Your task to perform on an android device: change your default location settings in chrome Image 0: 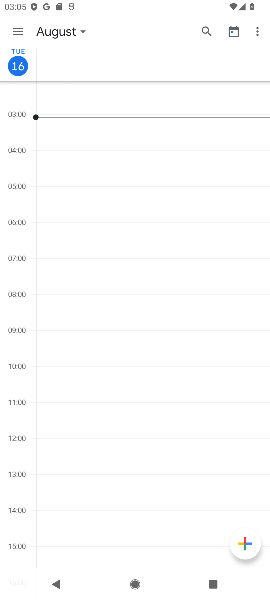
Step 0: press home button
Your task to perform on an android device: change your default location settings in chrome Image 1: 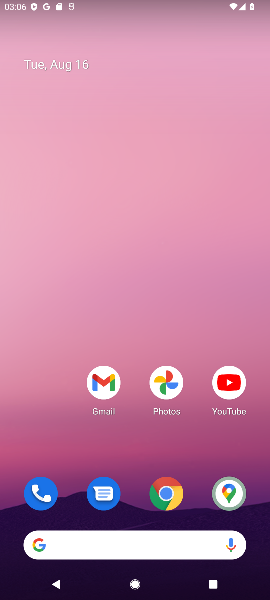
Step 1: drag from (60, 417) to (49, 53)
Your task to perform on an android device: change your default location settings in chrome Image 2: 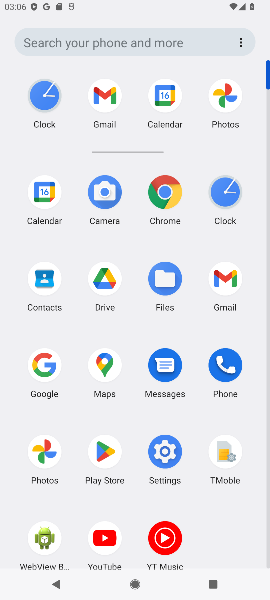
Step 2: click (165, 193)
Your task to perform on an android device: change your default location settings in chrome Image 3: 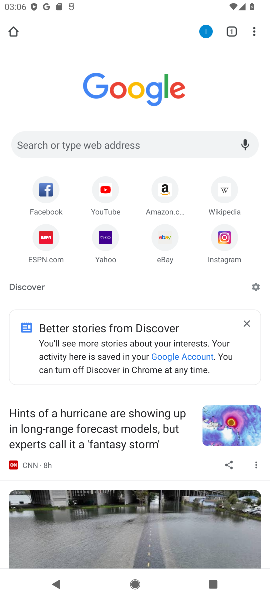
Step 3: click (253, 27)
Your task to perform on an android device: change your default location settings in chrome Image 4: 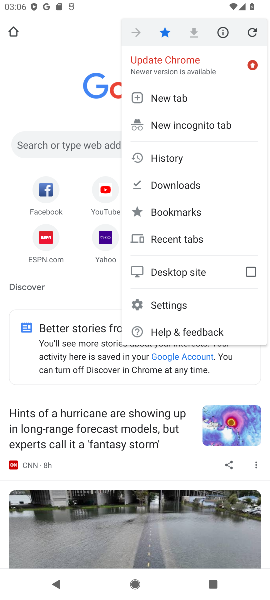
Step 4: click (183, 302)
Your task to perform on an android device: change your default location settings in chrome Image 5: 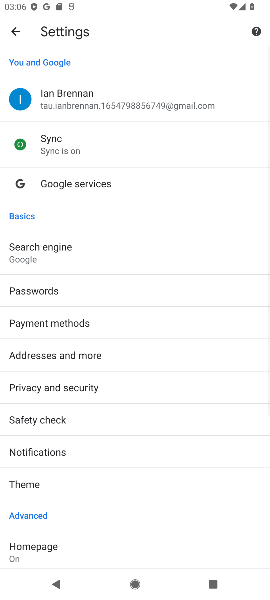
Step 5: drag from (185, 339) to (188, 248)
Your task to perform on an android device: change your default location settings in chrome Image 6: 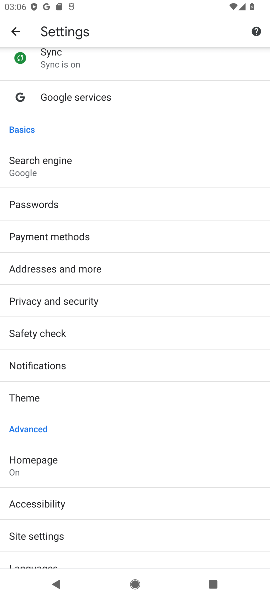
Step 6: drag from (208, 371) to (208, 337)
Your task to perform on an android device: change your default location settings in chrome Image 7: 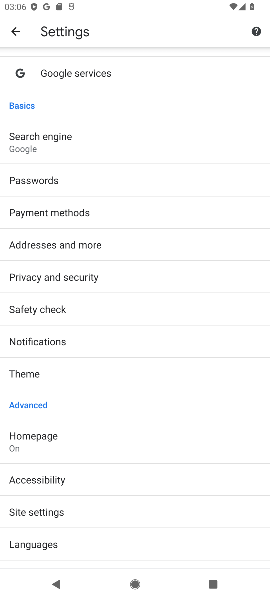
Step 7: drag from (209, 387) to (210, 297)
Your task to perform on an android device: change your default location settings in chrome Image 8: 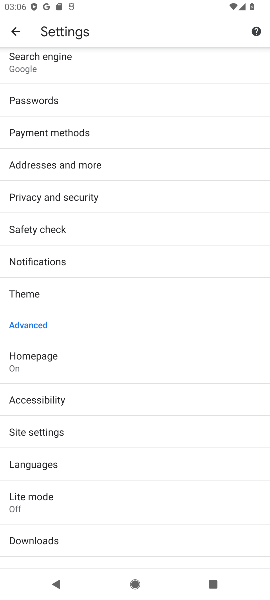
Step 8: drag from (195, 379) to (198, 306)
Your task to perform on an android device: change your default location settings in chrome Image 9: 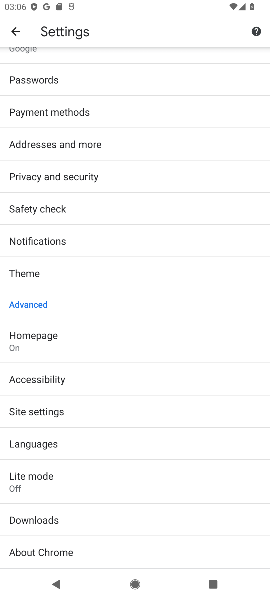
Step 9: click (198, 408)
Your task to perform on an android device: change your default location settings in chrome Image 10: 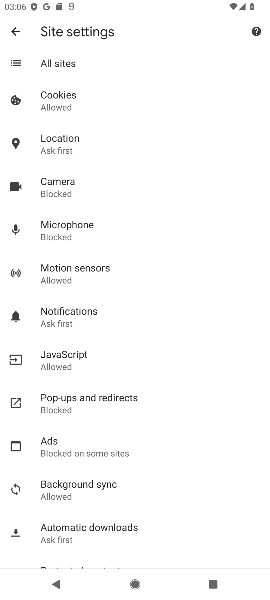
Step 10: drag from (200, 398) to (214, 315)
Your task to perform on an android device: change your default location settings in chrome Image 11: 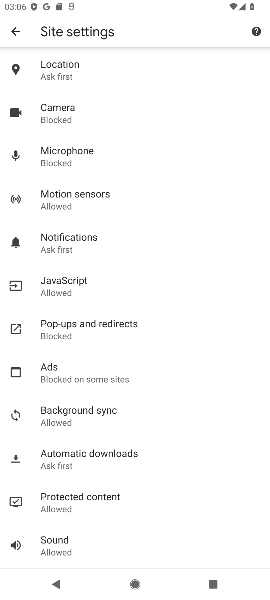
Step 11: drag from (214, 398) to (223, 309)
Your task to perform on an android device: change your default location settings in chrome Image 12: 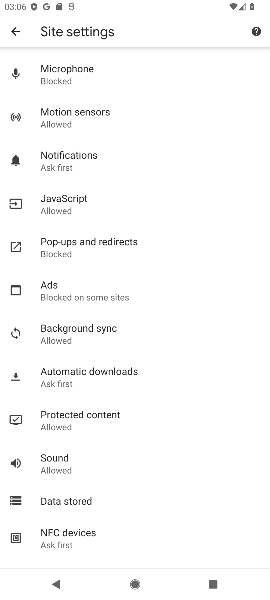
Step 12: drag from (214, 386) to (215, 270)
Your task to perform on an android device: change your default location settings in chrome Image 13: 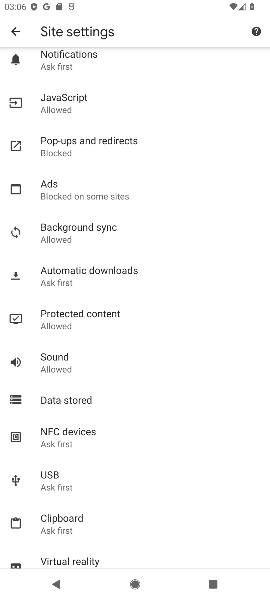
Step 13: drag from (206, 374) to (206, 317)
Your task to perform on an android device: change your default location settings in chrome Image 14: 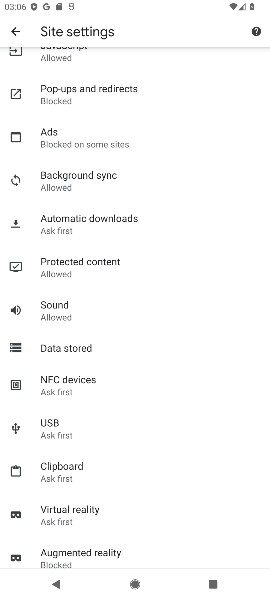
Step 14: drag from (199, 435) to (222, 263)
Your task to perform on an android device: change your default location settings in chrome Image 15: 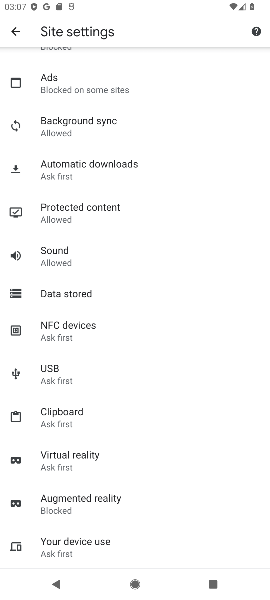
Step 15: drag from (221, 370) to (232, 254)
Your task to perform on an android device: change your default location settings in chrome Image 16: 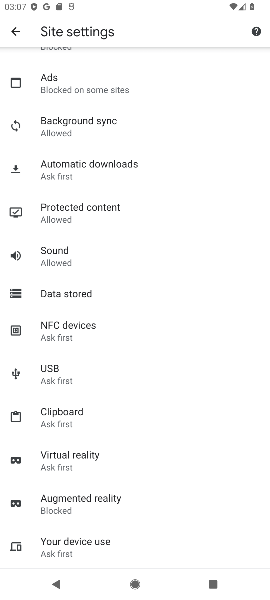
Step 16: drag from (220, 159) to (227, 244)
Your task to perform on an android device: change your default location settings in chrome Image 17: 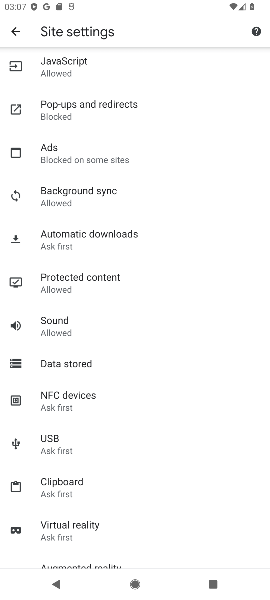
Step 17: drag from (228, 123) to (226, 226)
Your task to perform on an android device: change your default location settings in chrome Image 18: 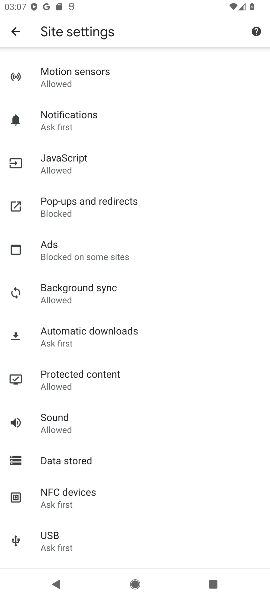
Step 18: drag from (226, 102) to (221, 208)
Your task to perform on an android device: change your default location settings in chrome Image 19: 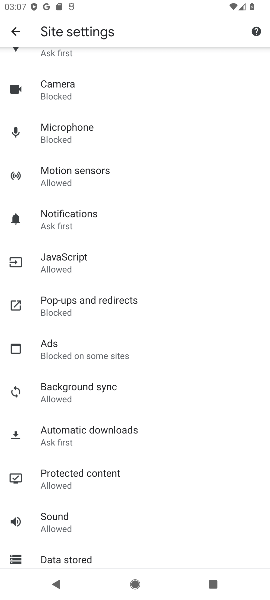
Step 19: drag from (221, 76) to (220, 222)
Your task to perform on an android device: change your default location settings in chrome Image 20: 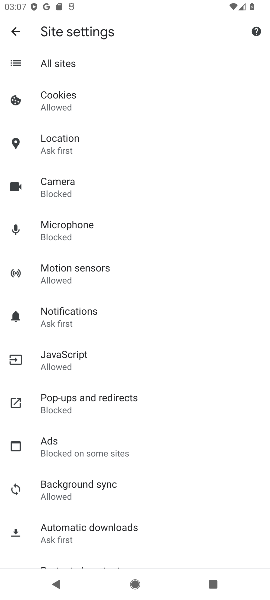
Step 20: drag from (209, 110) to (210, 269)
Your task to perform on an android device: change your default location settings in chrome Image 21: 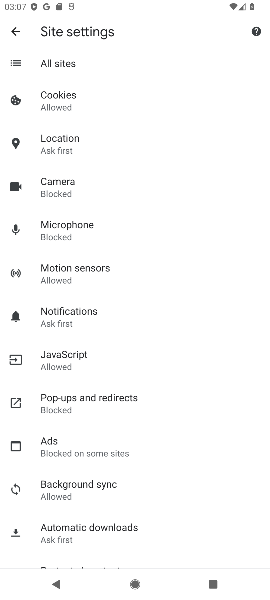
Step 21: click (100, 140)
Your task to perform on an android device: change your default location settings in chrome Image 22: 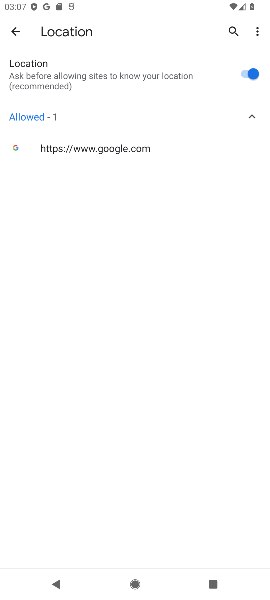
Step 22: click (244, 75)
Your task to perform on an android device: change your default location settings in chrome Image 23: 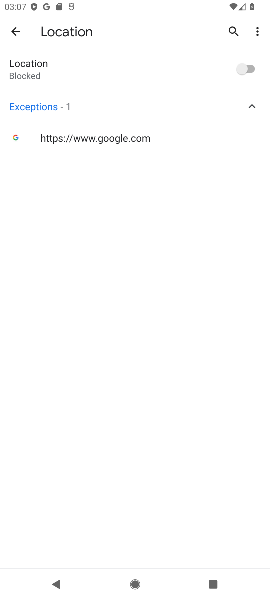
Step 23: task complete